Your task to perform on an android device: refresh tabs in the chrome app Image 0: 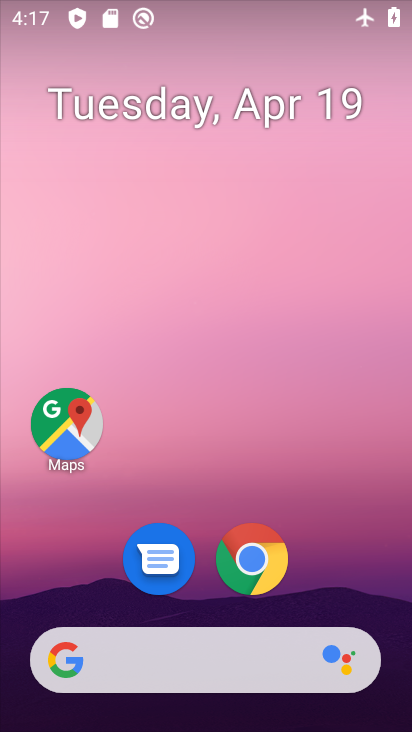
Step 0: click (234, 542)
Your task to perform on an android device: refresh tabs in the chrome app Image 1: 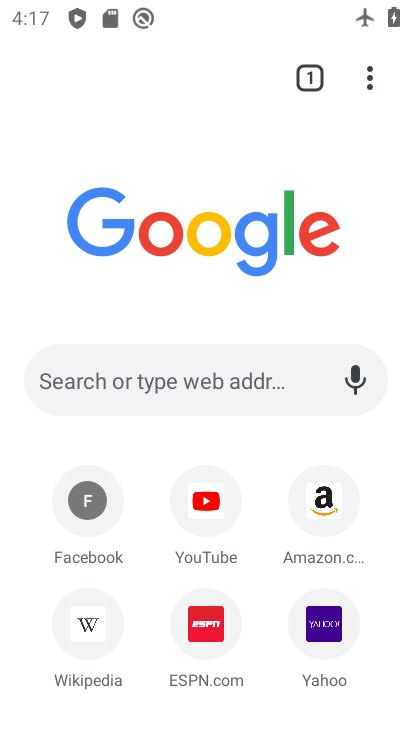
Step 1: drag from (259, 572) to (311, 134)
Your task to perform on an android device: refresh tabs in the chrome app Image 2: 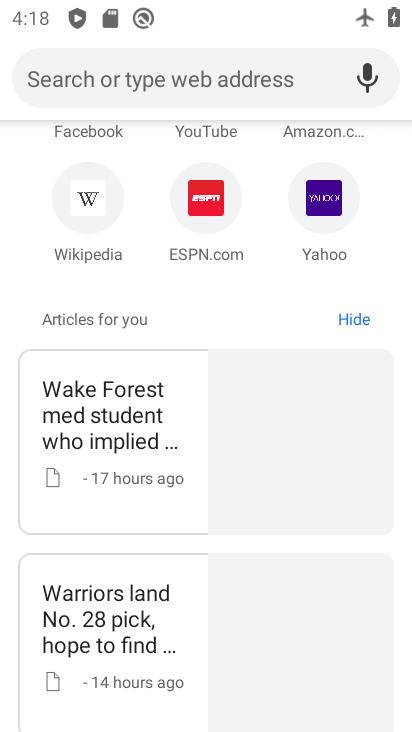
Step 2: drag from (265, 276) to (268, 691)
Your task to perform on an android device: refresh tabs in the chrome app Image 3: 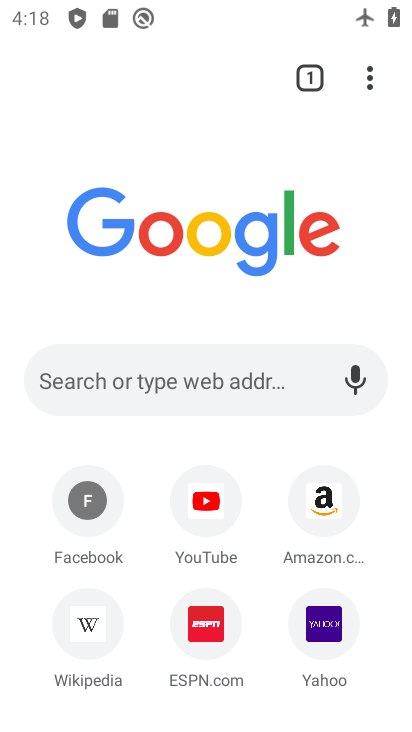
Step 3: click (372, 79)
Your task to perform on an android device: refresh tabs in the chrome app Image 4: 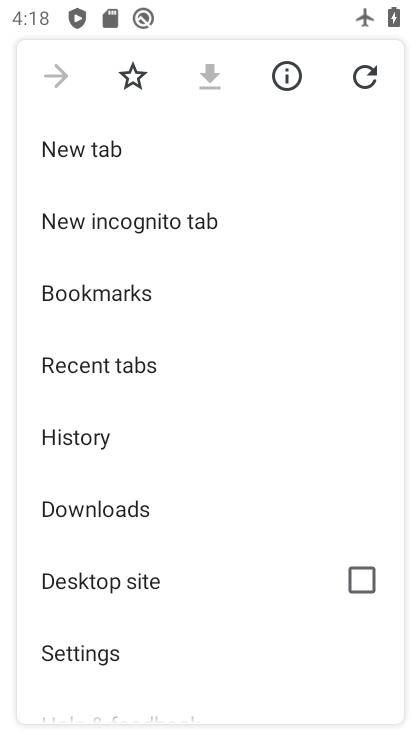
Step 4: click (368, 61)
Your task to perform on an android device: refresh tabs in the chrome app Image 5: 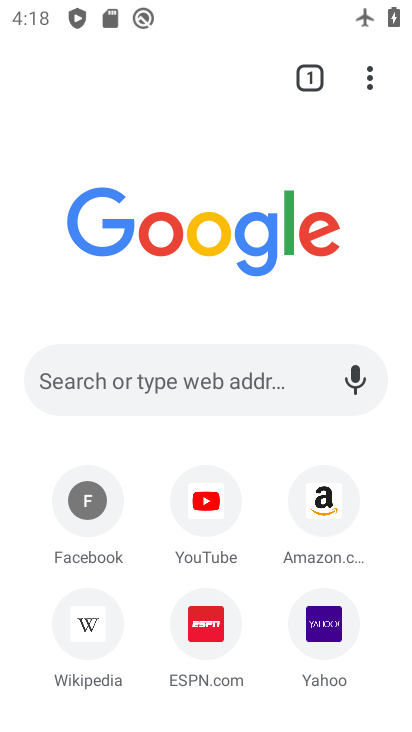
Step 5: task complete